Your task to perform on an android device: Search for Italian restaurants on Maps Image 0: 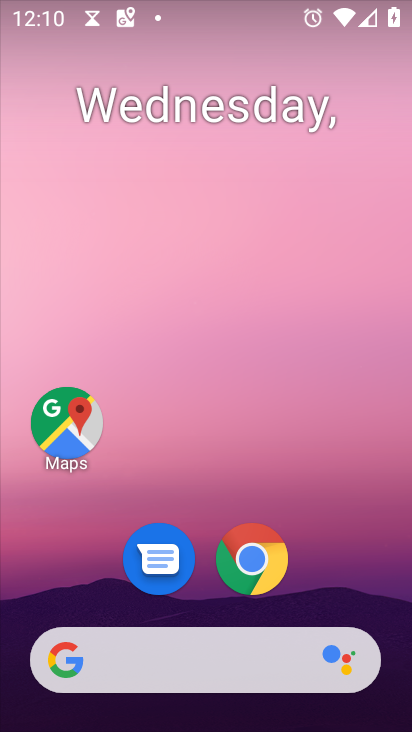
Step 0: drag from (330, 523) to (367, 26)
Your task to perform on an android device: Search for Italian restaurants on Maps Image 1: 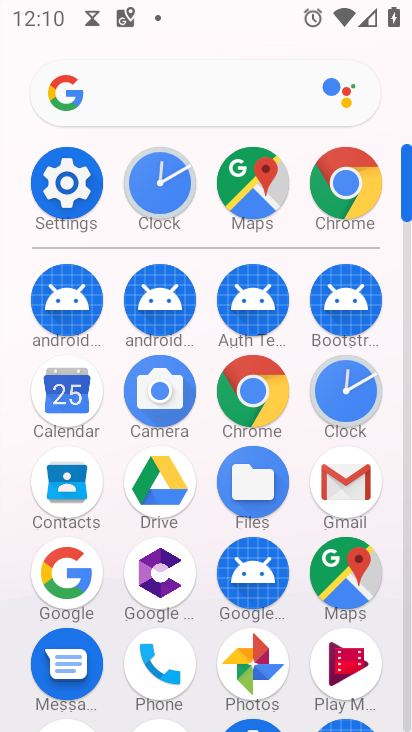
Step 1: click (265, 189)
Your task to perform on an android device: Search for Italian restaurants on Maps Image 2: 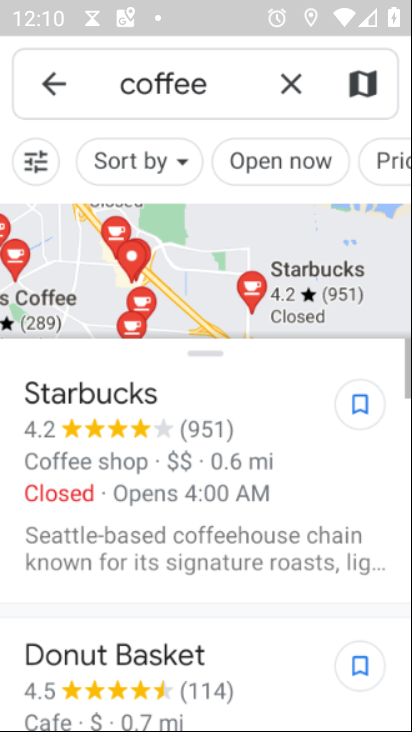
Step 2: click (282, 92)
Your task to perform on an android device: Search for Italian restaurants on Maps Image 3: 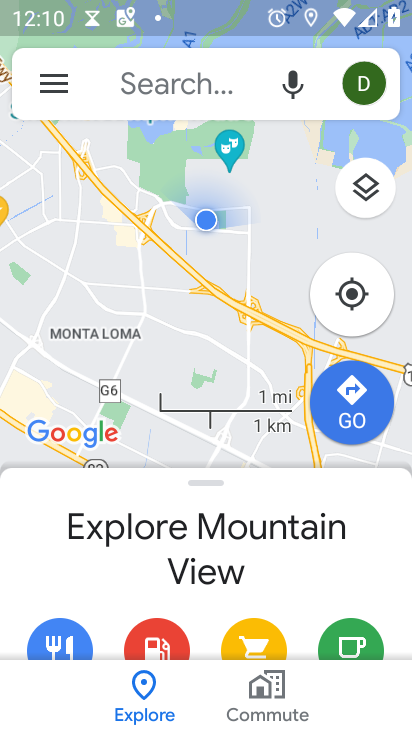
Step 3: click (151, 83)
Your task to perform on an android device: Search for Italian restaurants on Maps Image 4: 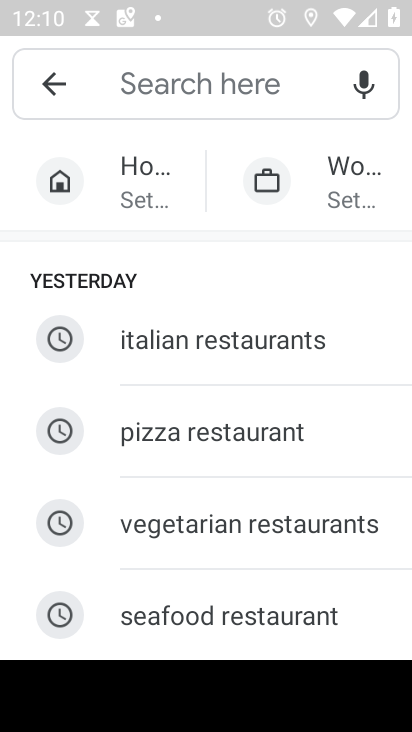
Step 4: click (265, 344)
Your task to perform on an android device: Search for Italian restaurants on Maps Image 5: 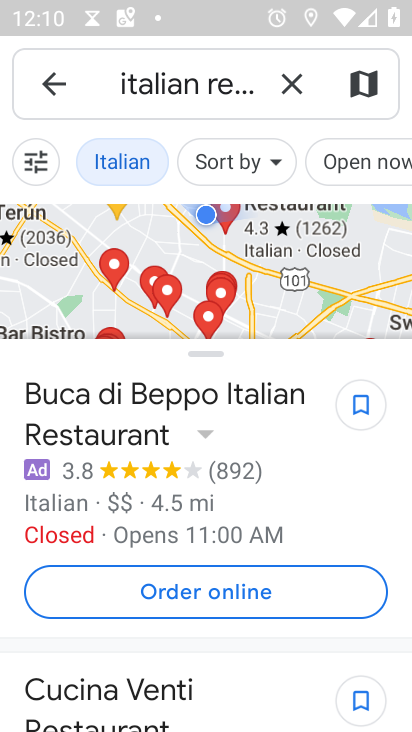
Step 5: task complete